Your task to perform on an android device: Go to location settings Image 0: 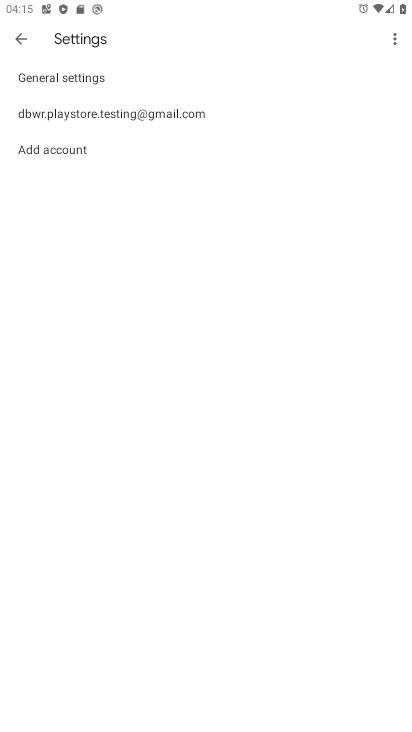
Step 0: press home button
Your task to perform on an android device: Go to location settings Image 1: 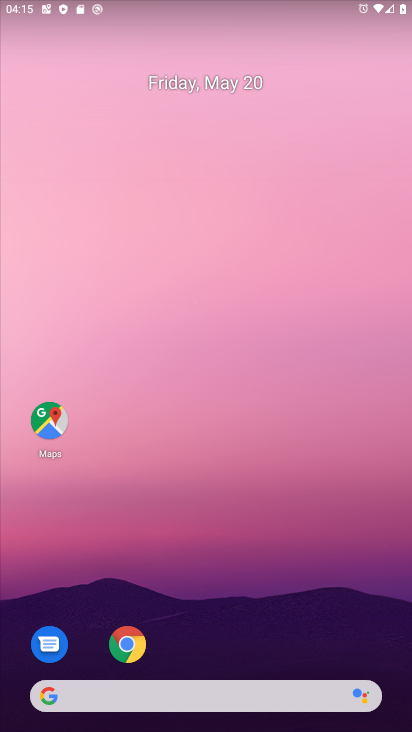
Step 1: drag from (206, 661) to (219, 17)
Your task to perform on an android device: Go to location settings Image 2: 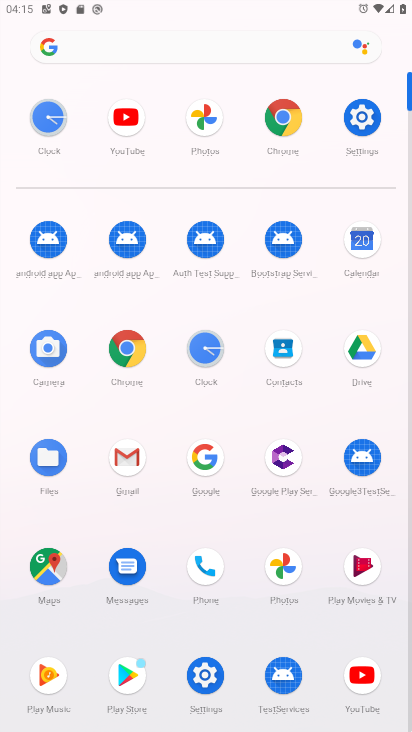
Step 2: click (349, 150)
Your task to perform on an android device: Go to location settings Image 3: 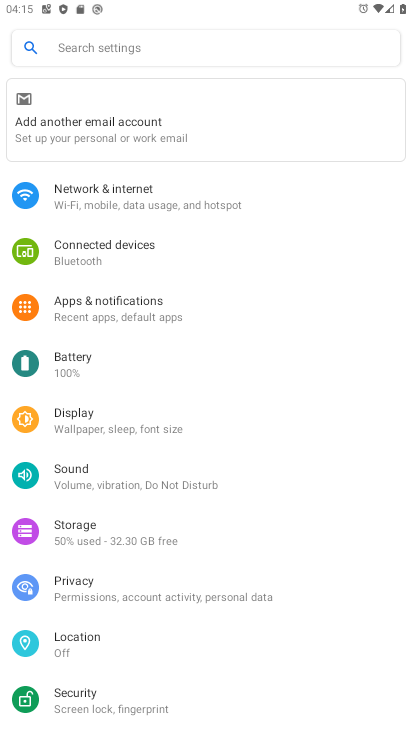
Step 3: click (150, 648)
Your task to perform on an android device: Go to location settings Image 4: 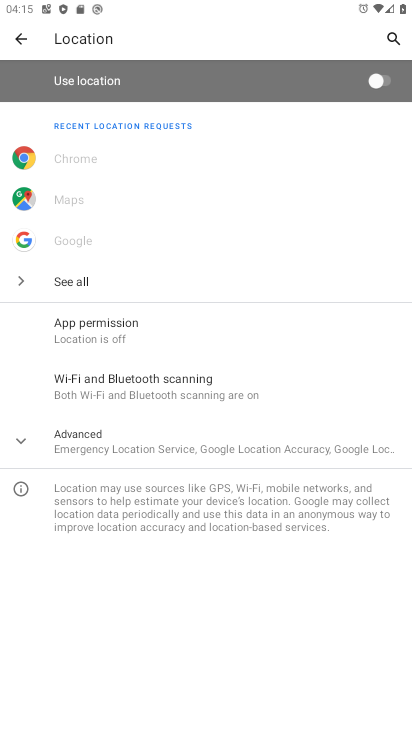
Step 4: task complete